Your task to perform on an android device: open a new tab in the chrome app Image 0: 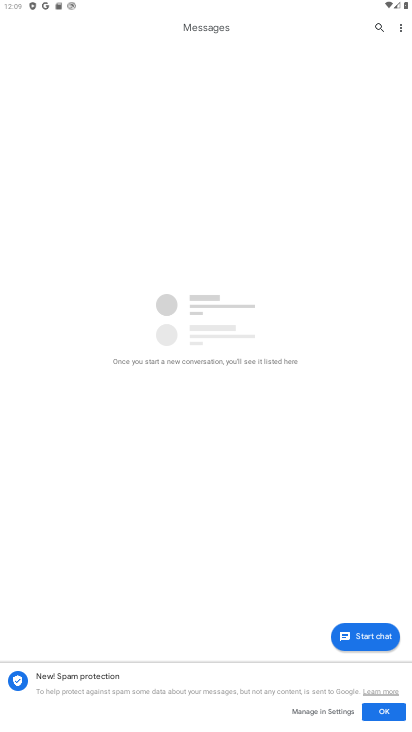
Step 0: press home button
Your task to perform on an android device: open a new tab in the chrome app Image 1: 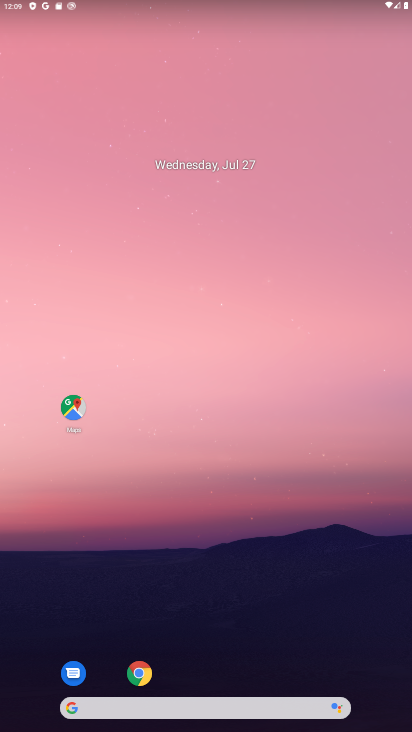
Step 1: click (136, 675)
Your task to perform on an android device: open a new tab in the chrome app Image 2: 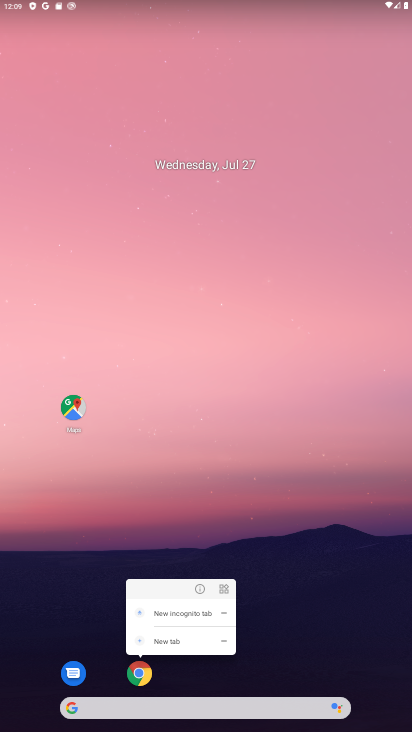
Step 2: click (136, 675)
Your task to perform on an android device: open a new tab in the chrome app Image 3: 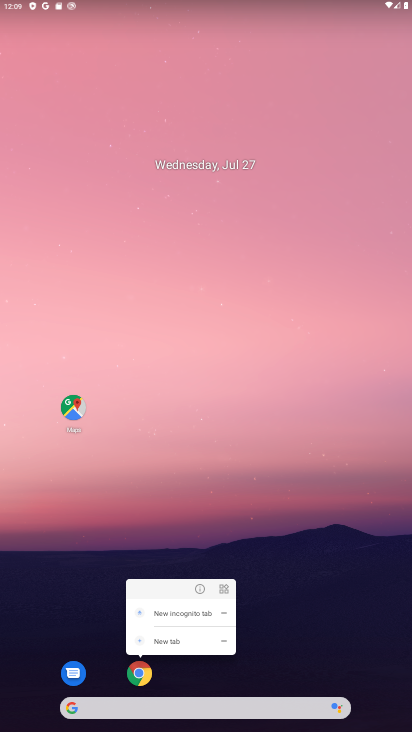
Step 3: click (136, 675)
Your task to perform on an android device: open a new tab in the chrome app Image 4: 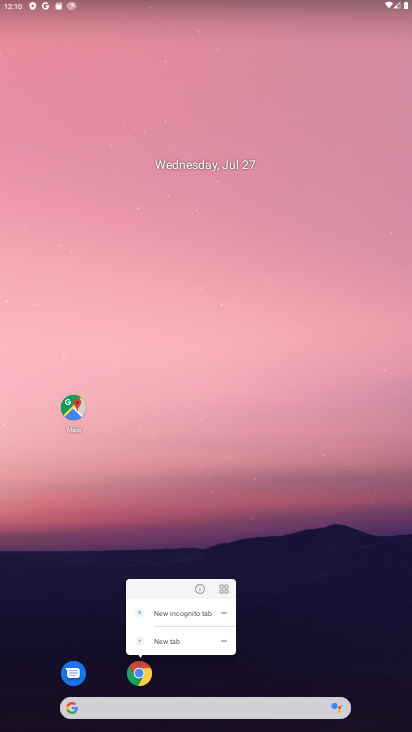
Step 4: click (136, 675)
Your task to perform on an android device: open a new tab in the chrome app Image 5: 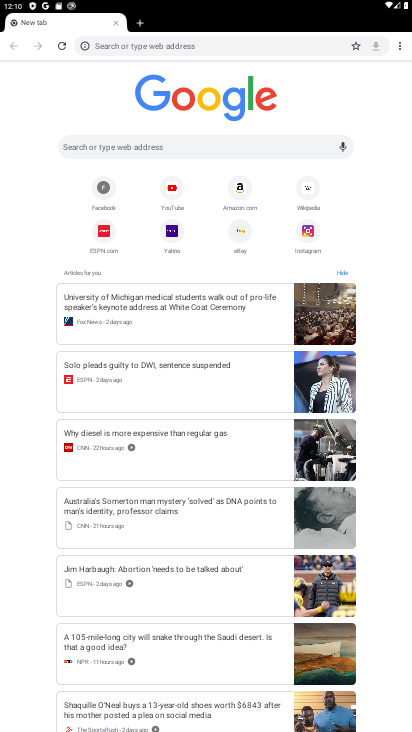
Step 5: task complete